Your task to perform on an android device: find snoozed emails in the gmail app Image 0: 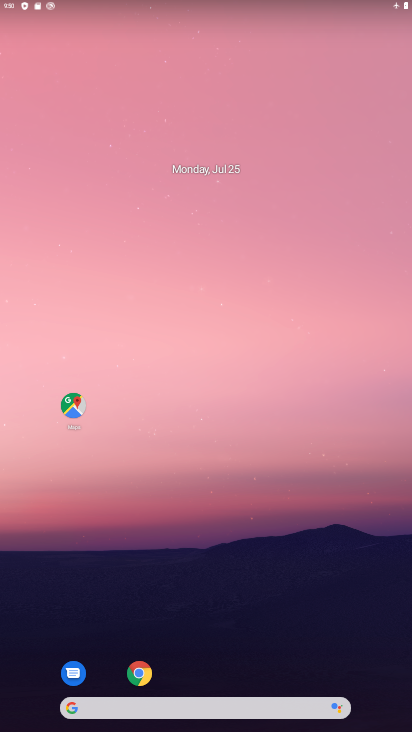
Step 0: drag from (315, 560) to (311, 69)
Your task to perform on an android device: find snoozed emails in the gmail app Image 1: 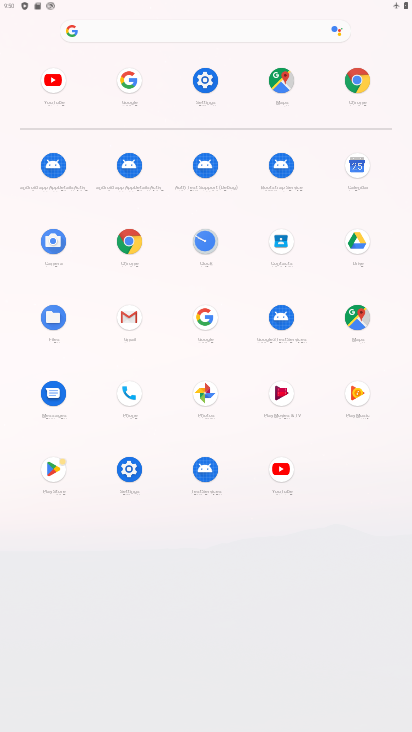
Step 1: click (125, 317)
Your task to perform on an android device: find snoozed emails in the gmail app Image 2: 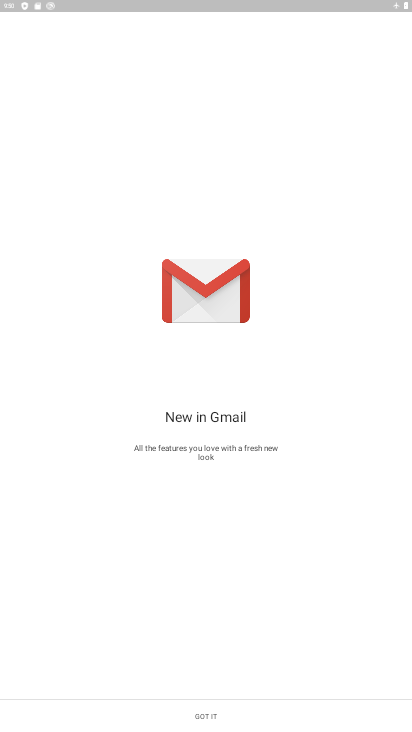
Step 2: click (225, 712)
Your task to perform on an android device: find snoozed emails in the gmail app Image 3: 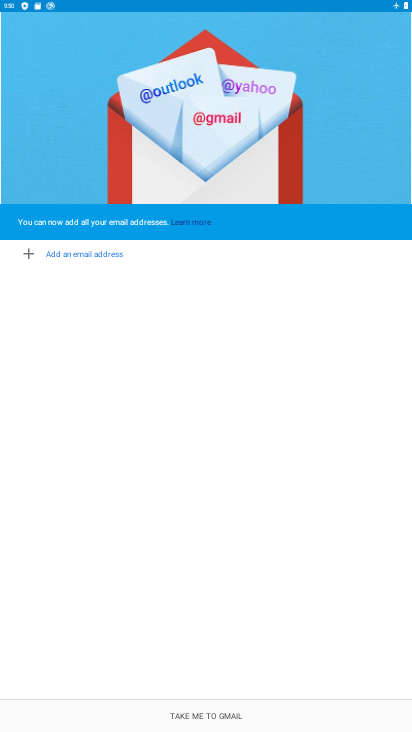
Step 3: task complete